Your task to perform on an android device: open app "Microsoft Authenticator" (install if not already installed) Image 0: 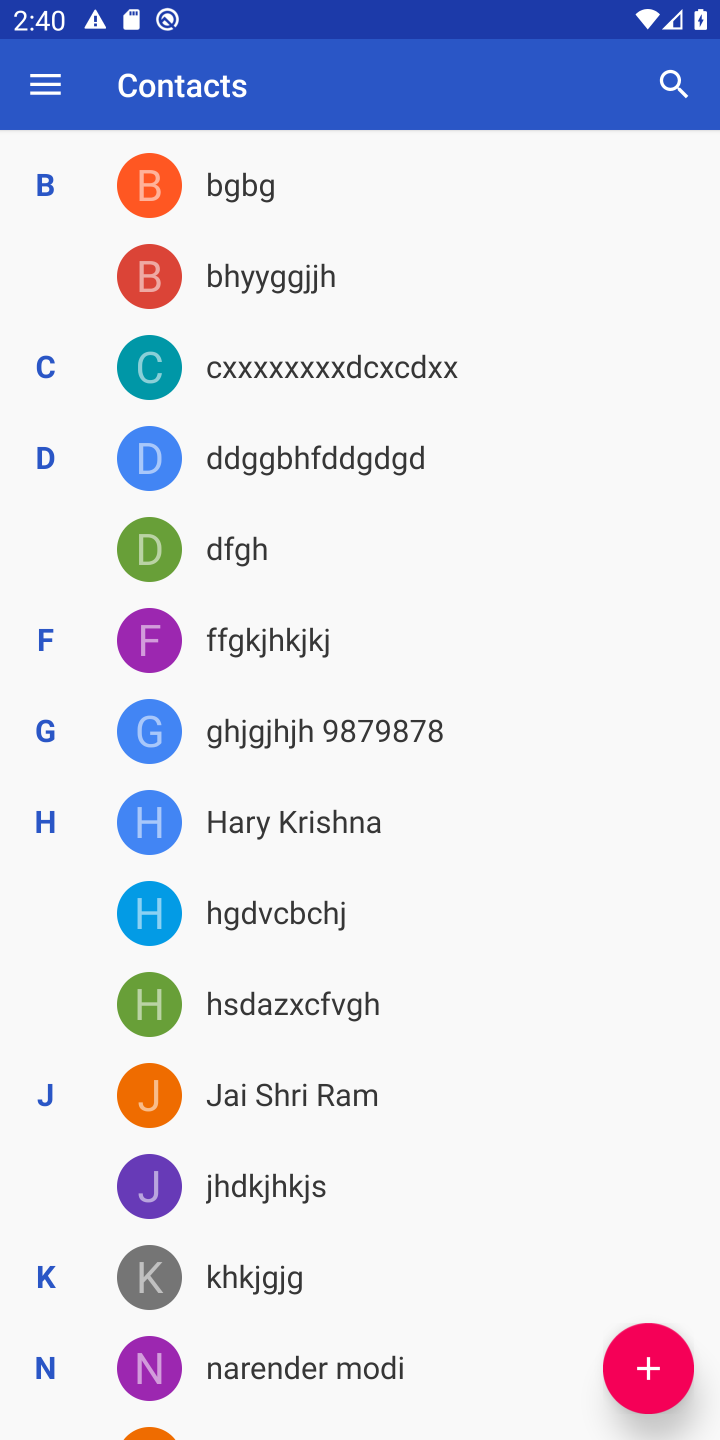
Step 0: press home button
Your task to perform on an android device: open app "Microsoft Authenticator" (install if not already installed) Image 1: 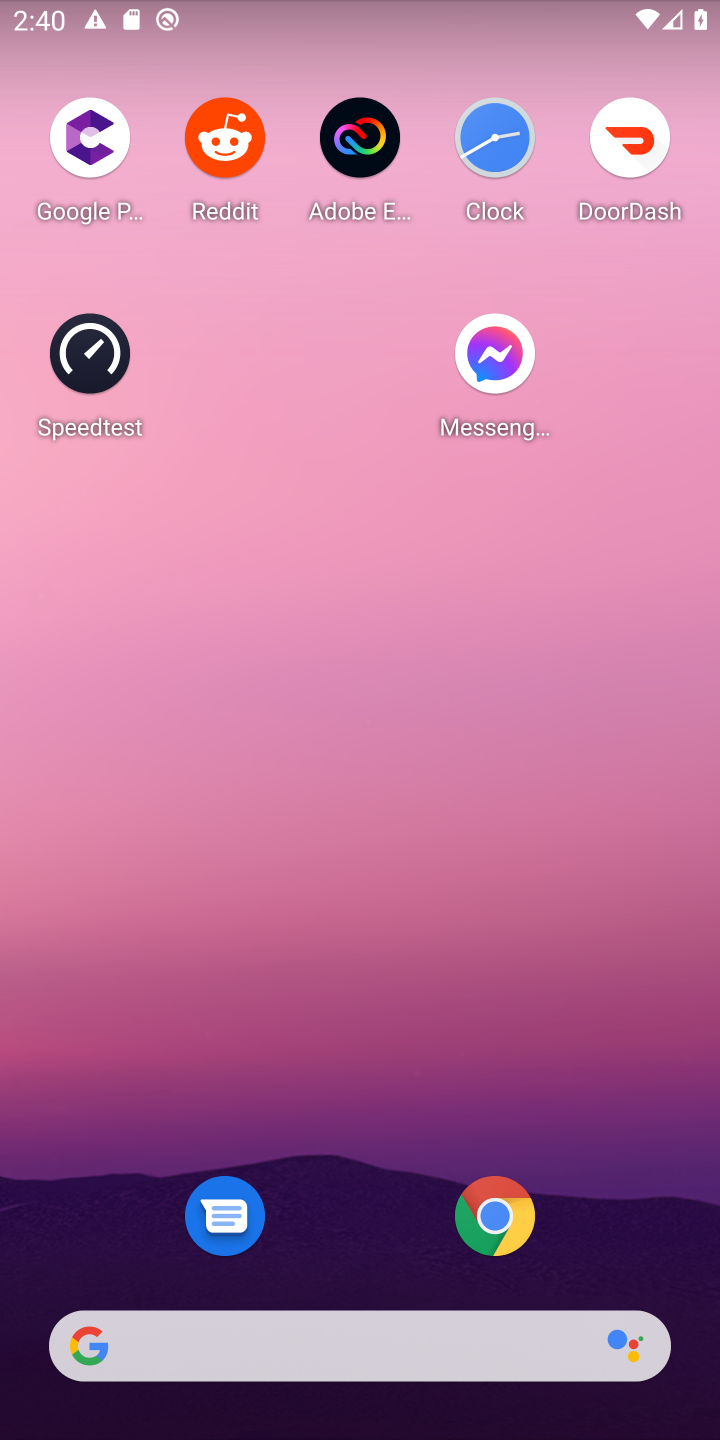
Step 1: drag from (690, 1251) to (565, 311)
Your task to perform on an android device: open app "Microsoft Authenticator" (install if not already installed) Image 2: 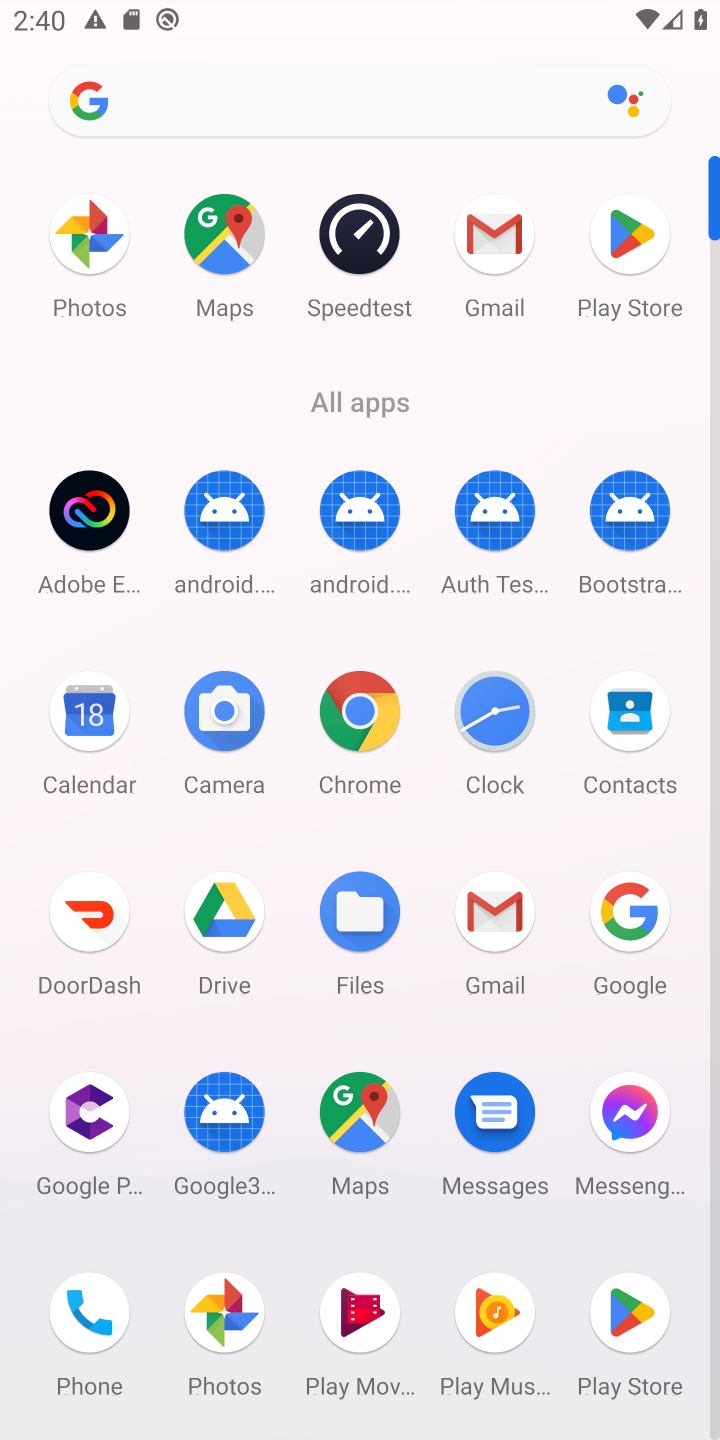
Step 2: click (641, 1312)
Your task to perform on an android device: open app "Microsoft Authenticator" (install if not already installed) Image 3: 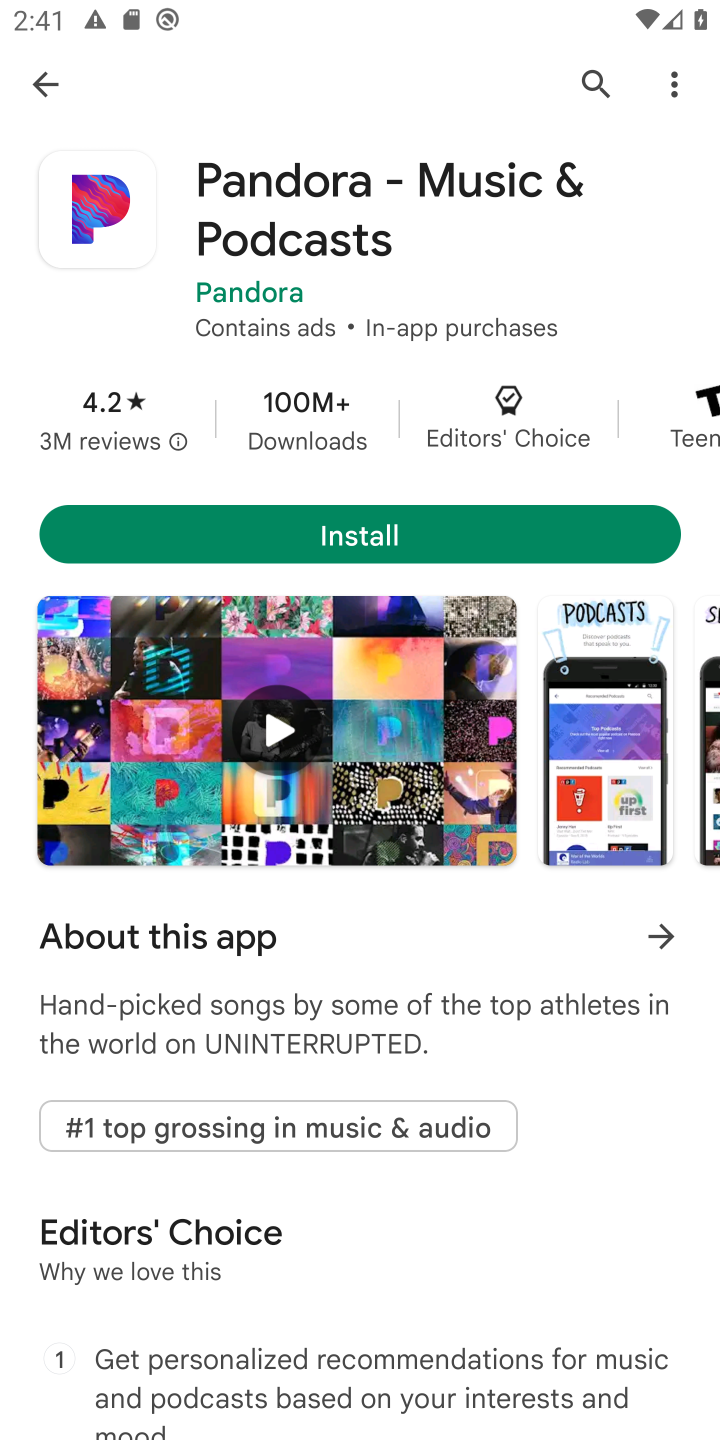
Step 3: click (590, 73)
Your task to perform on an android device: open app "Microsoft Authenticator" (install if not already installed) Image 4: 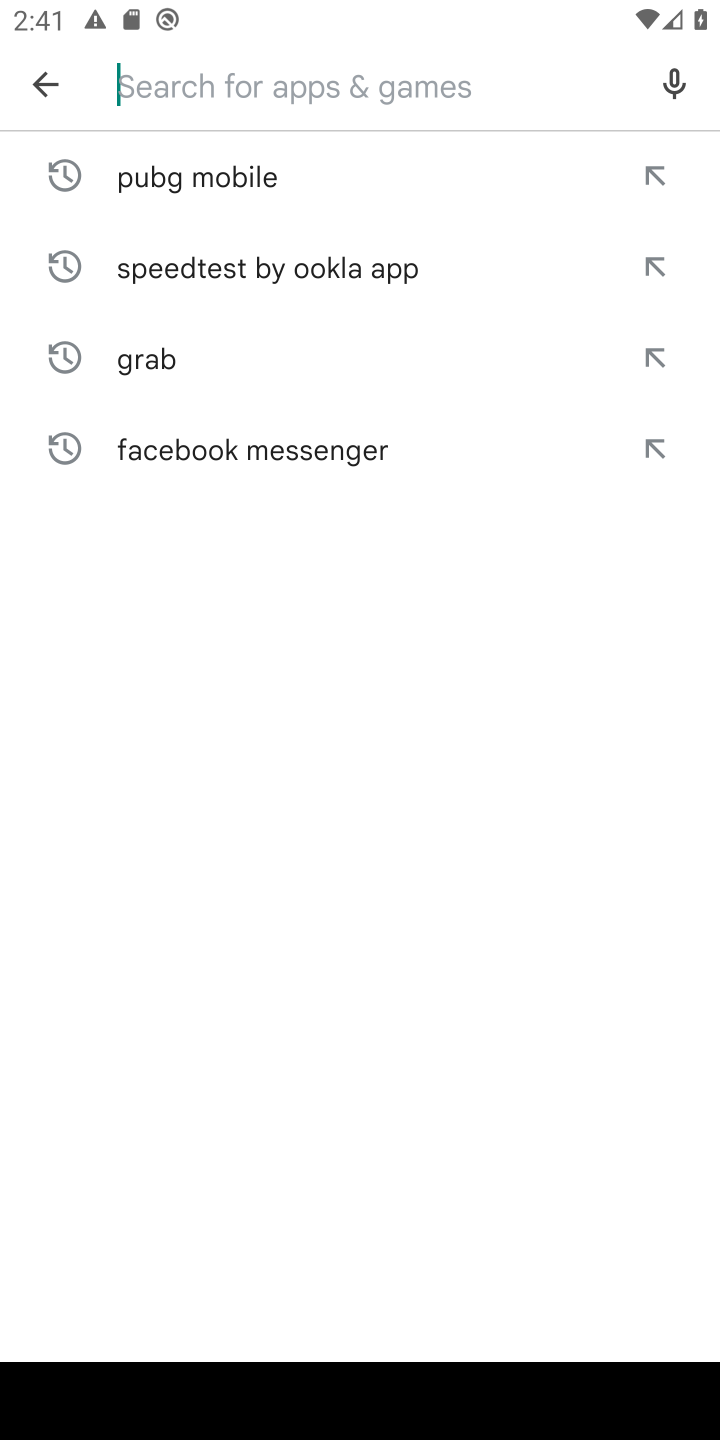
Step 4: type "Microsoft Authenticator"
Your task to perform on an android device: open app "Microsoft Authenticator" (install if not already installed) Image 5: 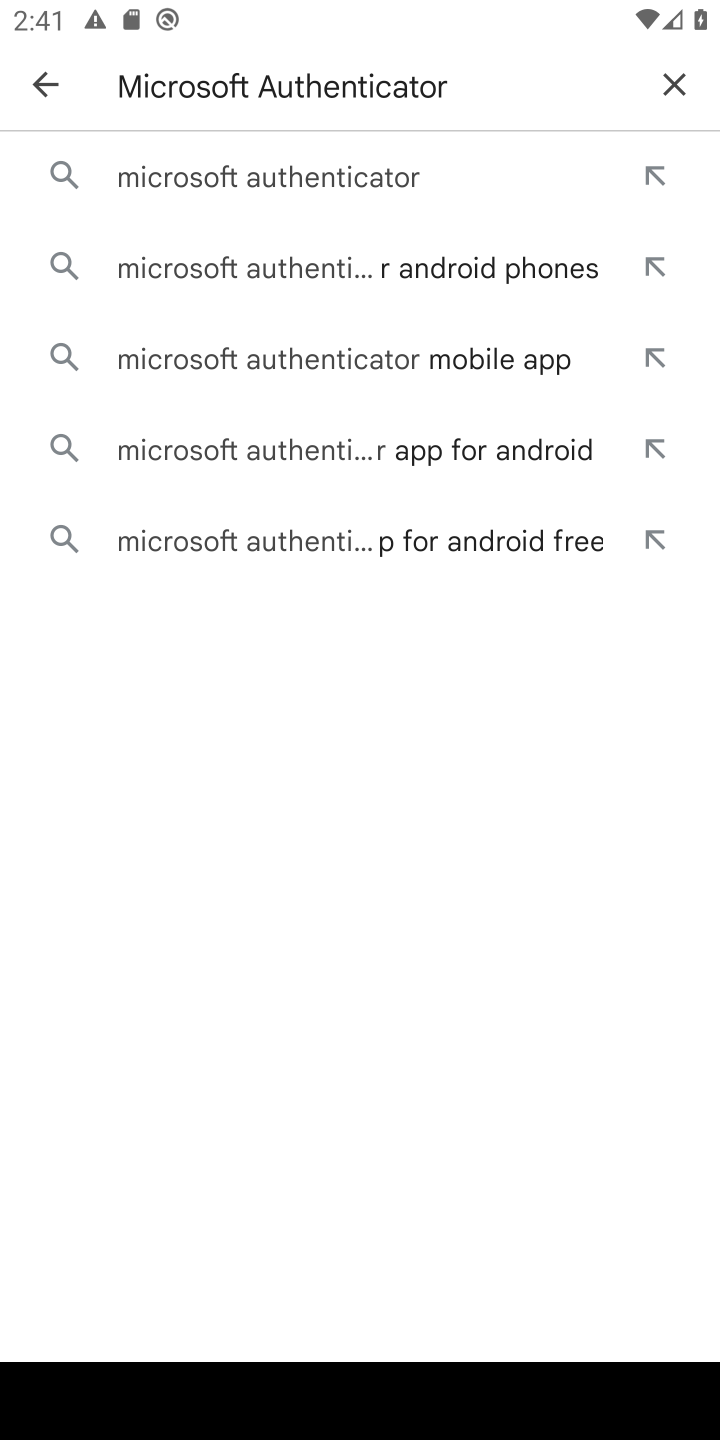
Step 5: click (254, 154)
Your task to perform on an android device: open app "Microsoft Authenticator" (install if not already installed) Image 6: 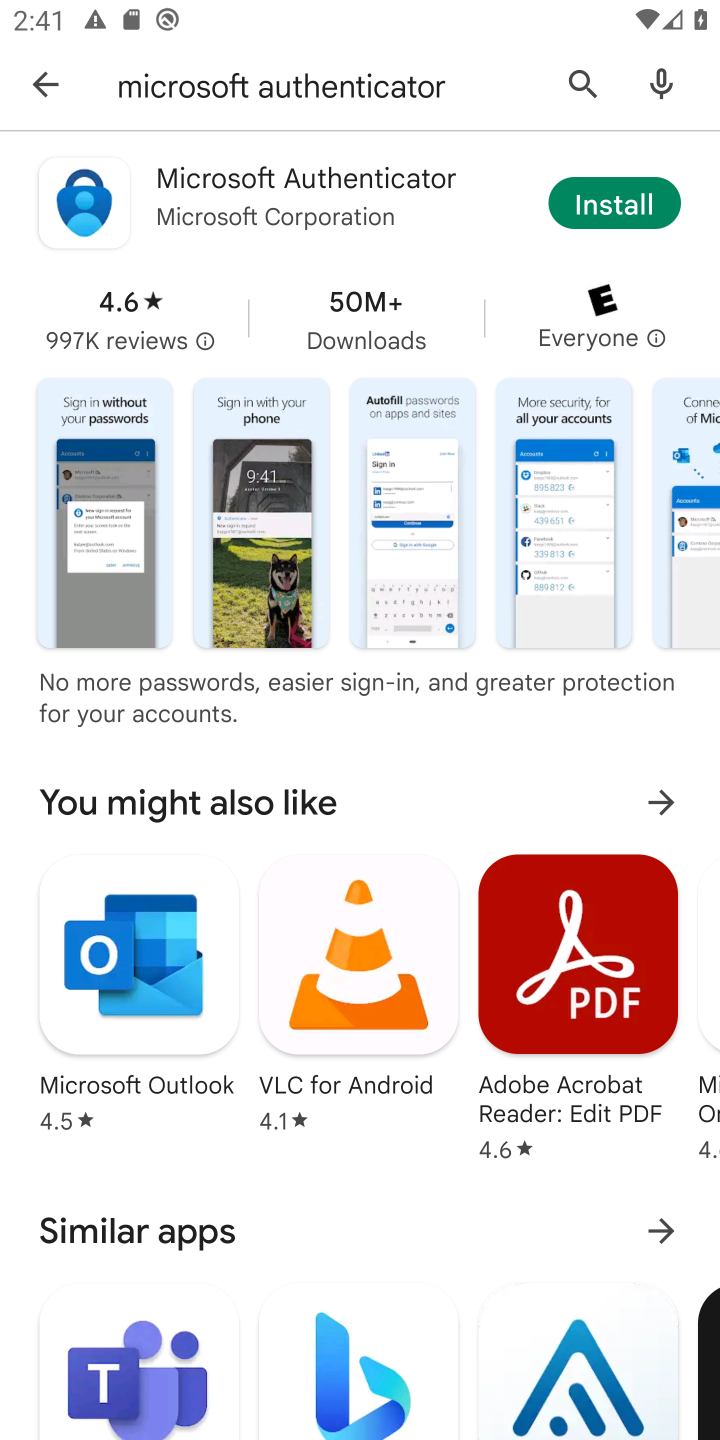
Step 6: click (596, 189)
Your task to perform on an android device: open app "Microsoft Authenticator" (install if not already installed) Image 7: 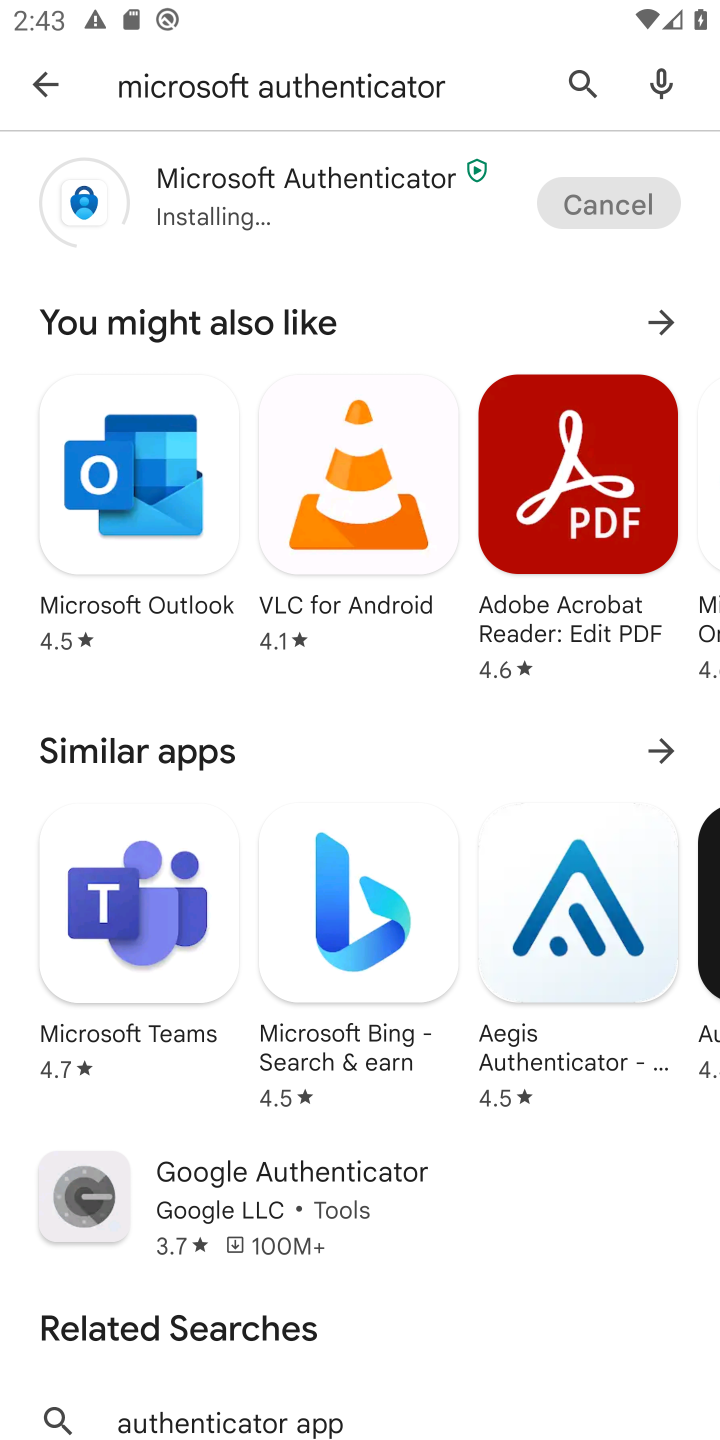
Step 7: click (181, 172)
Your task to perform on an android device: open app "Microsoft Authenticator" (install if not already installed) Image 8: 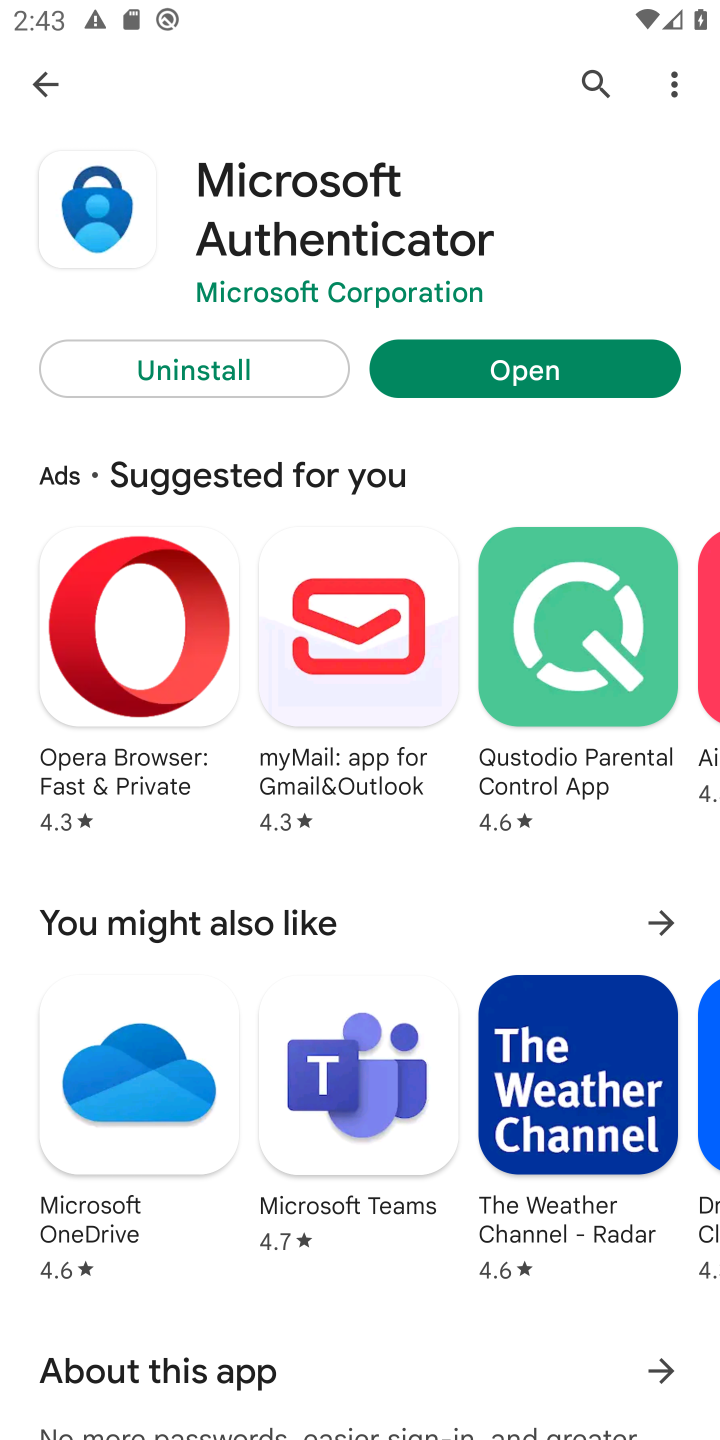
Step 8: click (533, 376)
Your task to perform on an android device: open app "Microsoft Authenticator" (install if not already installed) Image 9: 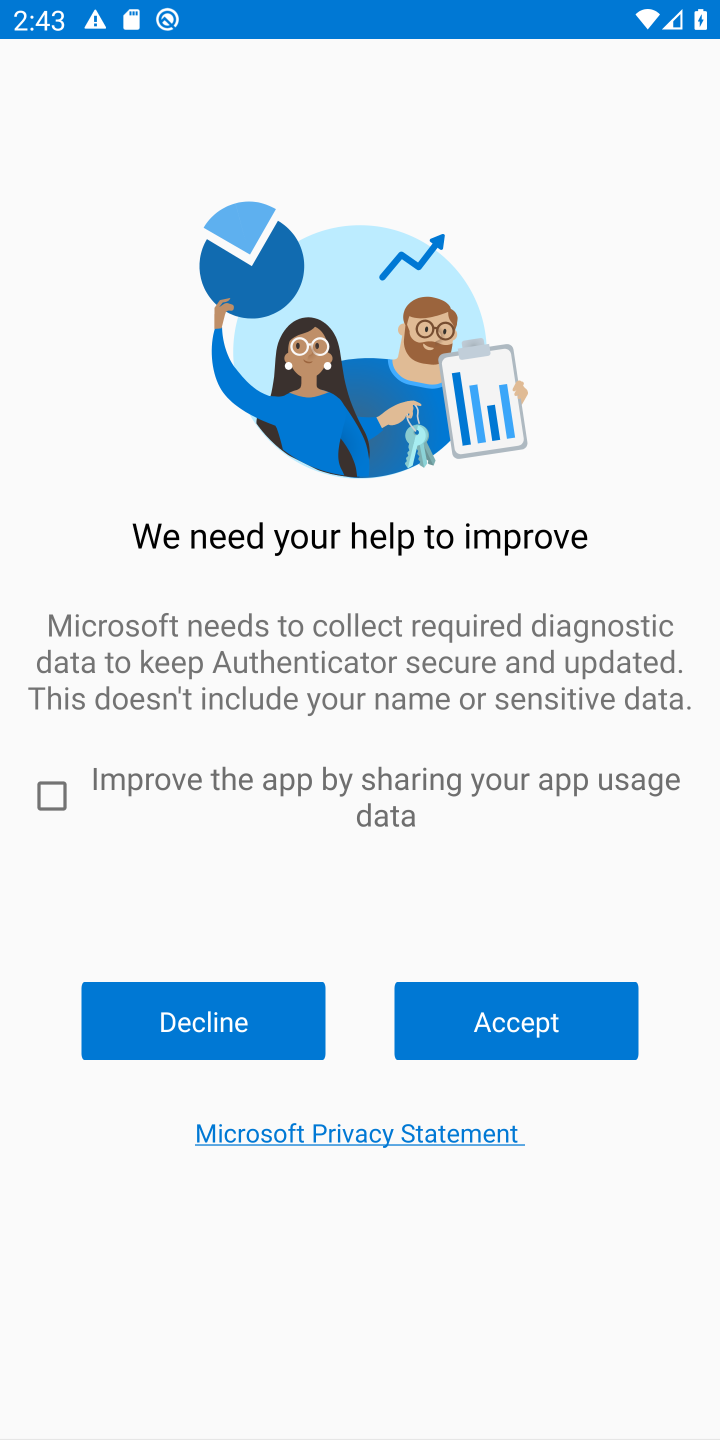
Step 9: click (59, 807)
Your task to perform on an android device: open app "Microsoft Authenticator" (install if not already installed) Image 10: 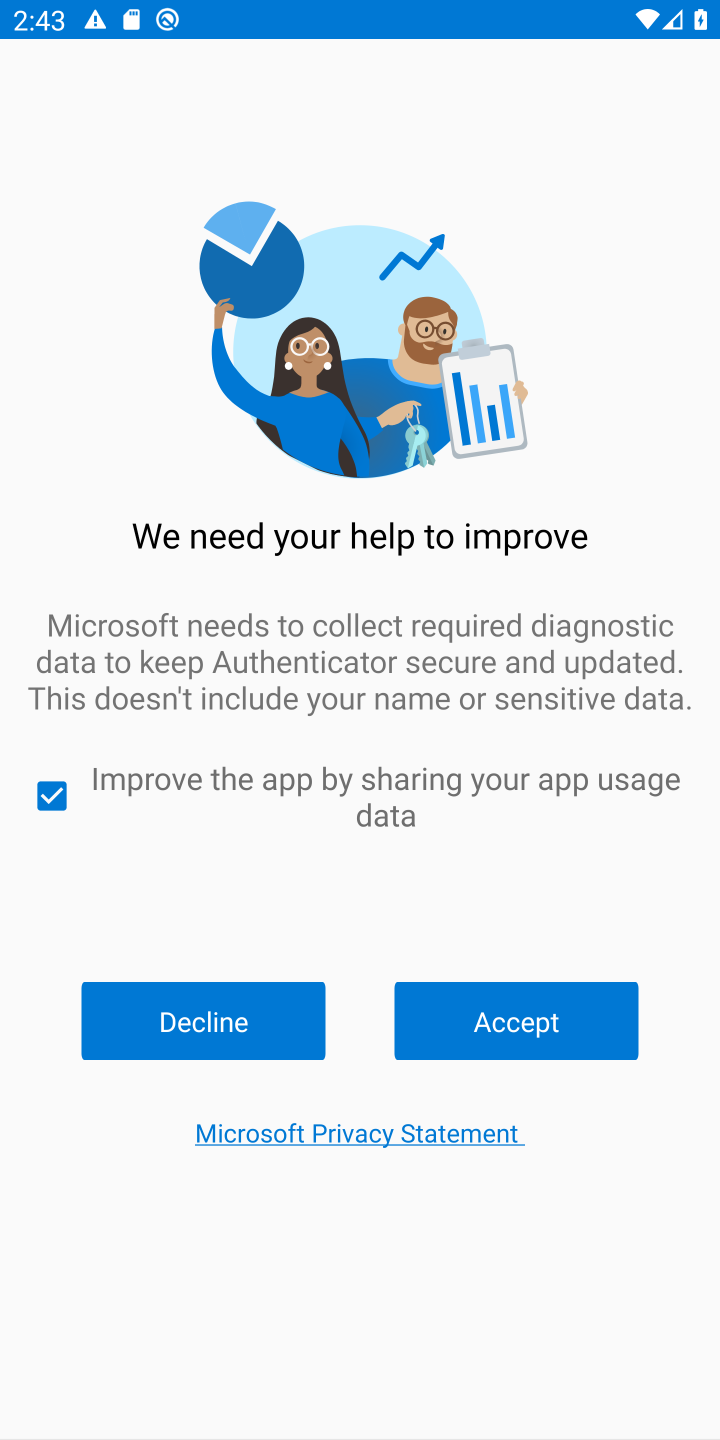
Step 10: task complete